Your task to perform on an android device: stop showing notifications on the lock screen Image 0: 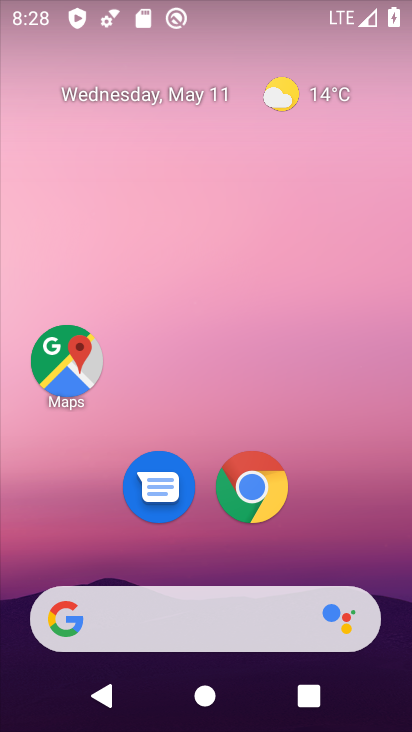
Step 0: drag from (282, 554) to (259, 247)
Your task to perform on an android device: stop showing notifications on the lock screen Image 1: 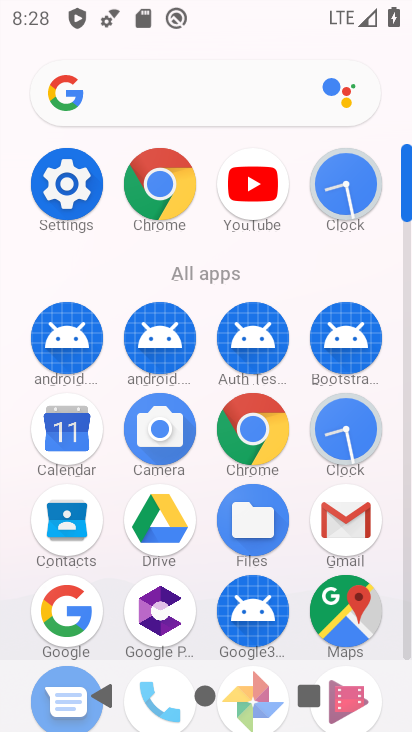
Step 1: click (64, 221)
Your task to perform on an android device: stop showing notifications on the lock screen Image 2: 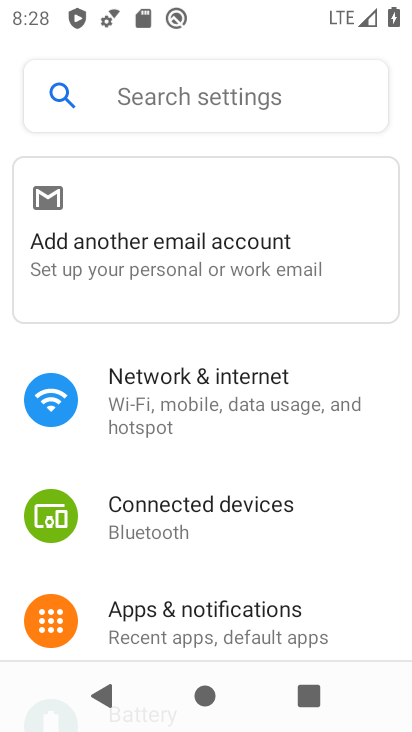
Step 2: click (151, 641)
Your task to perform on an android device: stop showing notifications on the lock screen Image 3: 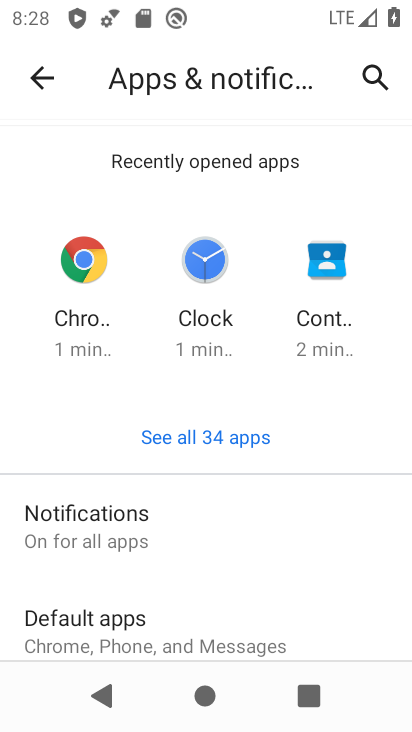
Step 3: click (115, 539)
Your task to perform on an android device: stop showing notifications on the lock screen Image 4: 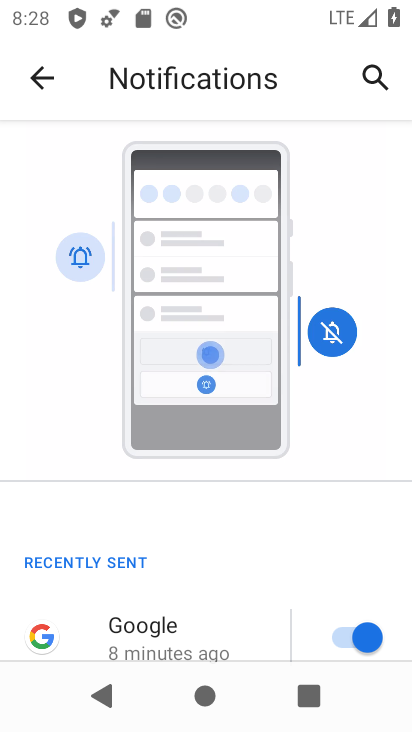
Step 4: drag from (143, 605) to (193, 339)
Your task to perform on an android device: stop showing notifications on the lock screen Image 5: 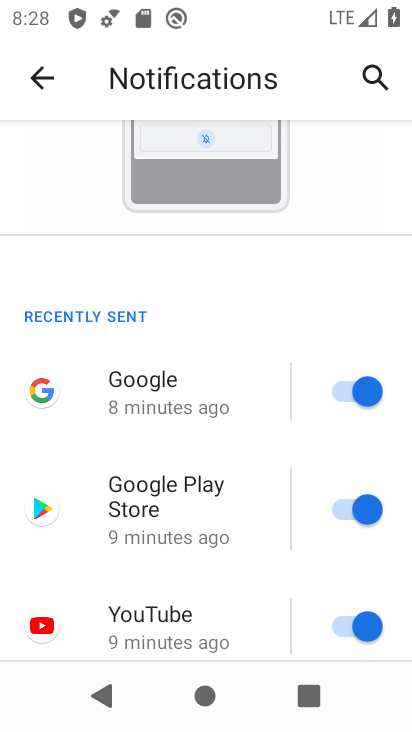
Step 5: drag from (153, 553) to (213, 315)
Your task to perform on an android device: stop showing notifications on the lock screen Image 6: 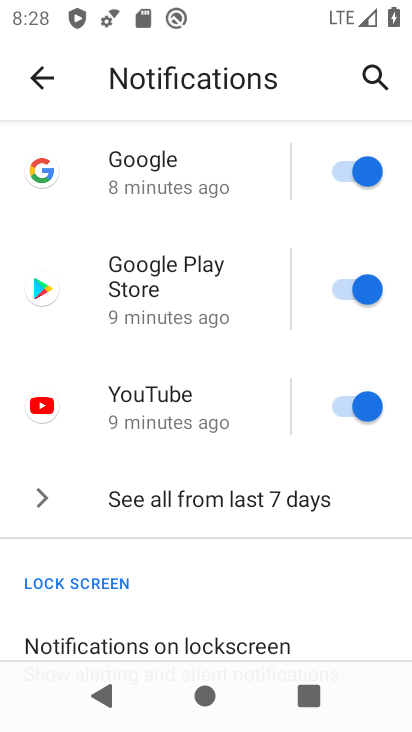
Step 6: drag from (150, 591) to (220, 292)
Your task to perform on an android device: stop showing notifications on the lock screen Image 7: 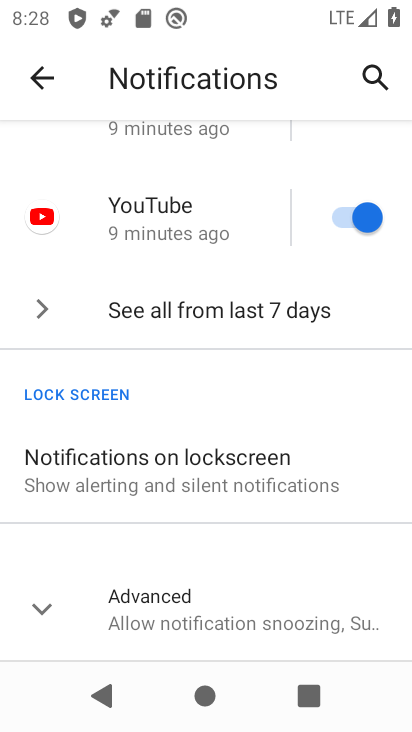
Step 7: click (122, 492)
Your task to perform on an android device: stop showing notifications on the lock screen Image 8: 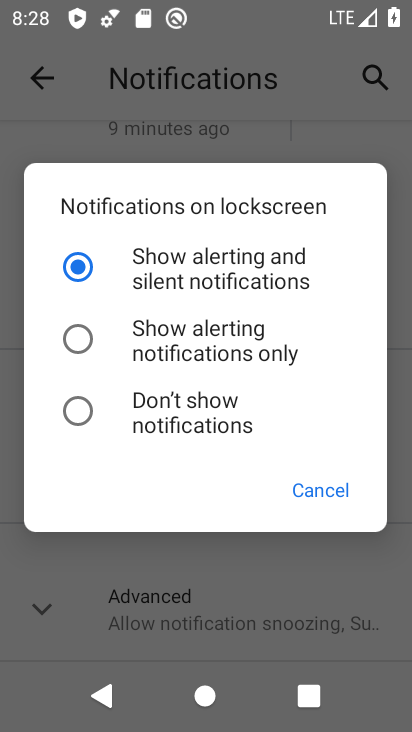
Step 8: click (87, 416)
Your task to perform on an android device: stop showing notifications on the lock screen Image 9: 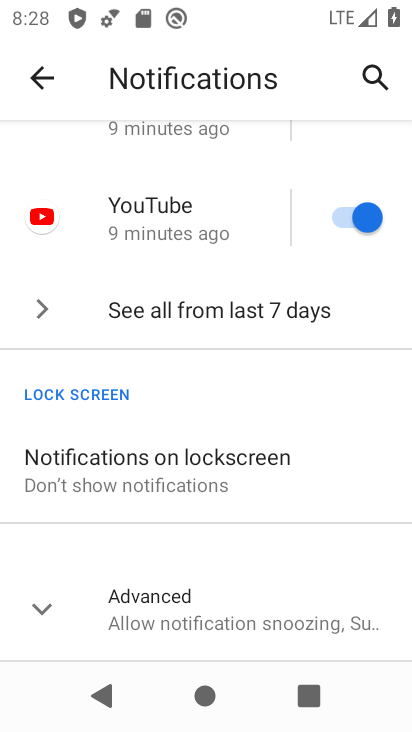
Step 9: task complete